Your task to perform on an android device: Open Amazon Image 0: 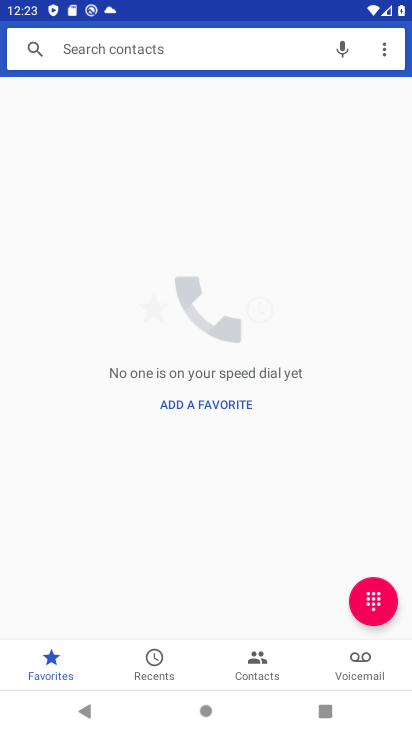
Step 0: press home button
Your task to perform on an android device: Open Amazon Image 1: 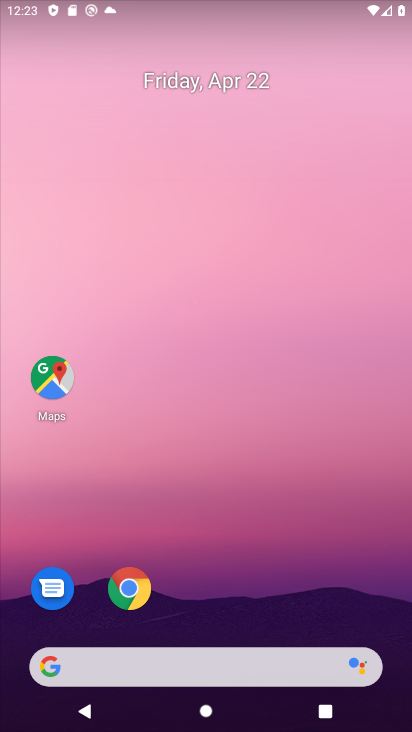
Step 1: drag from (295, 698) to (229, 255)
Your task to perform on an android device: Open Amazon Image 2: 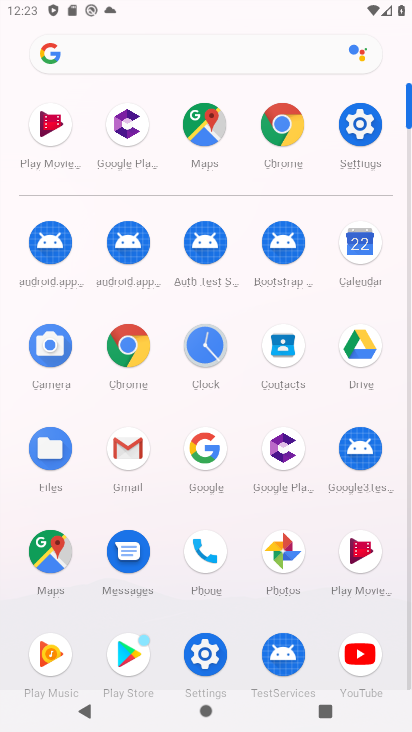
Step 2: click (261, 139)
Your task to perform on an android device: Open Amazon Image 3: 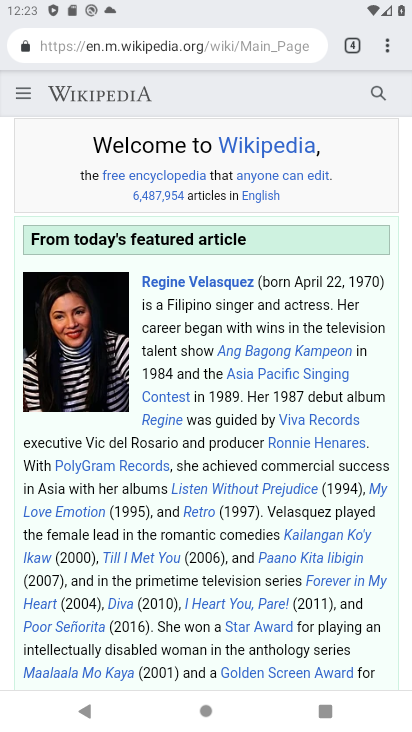
Step 3: click (218, 39)
Your task to perform on an android device: Open Amazon Image 4: 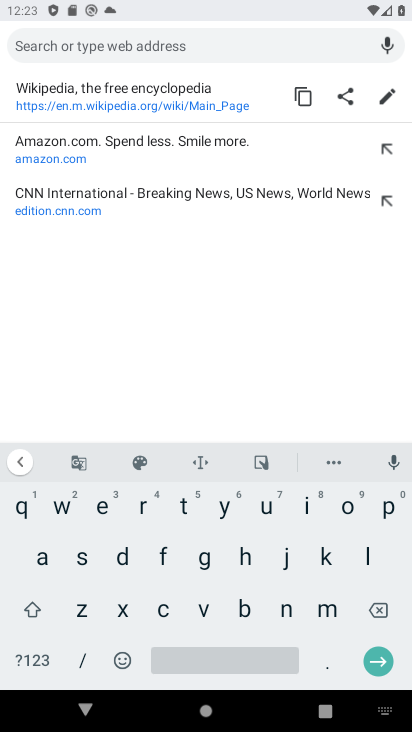
Step 4: click (145, 150)
Your task to perform on an android device: Open Amazon Image 5: 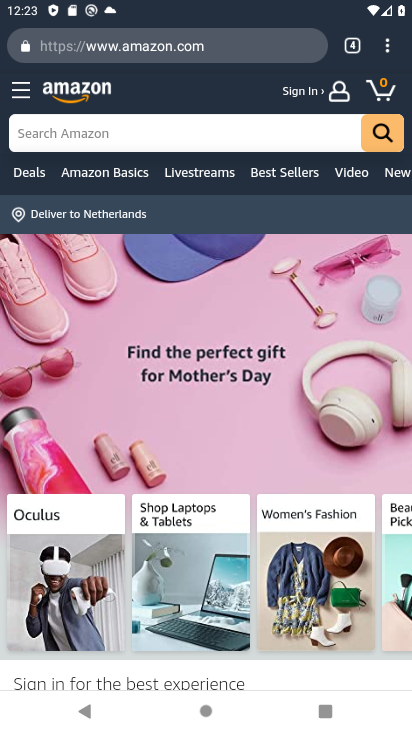
Step 5: task complete